Your task to perform on an android device: empty trash in the gmail app Image 0: 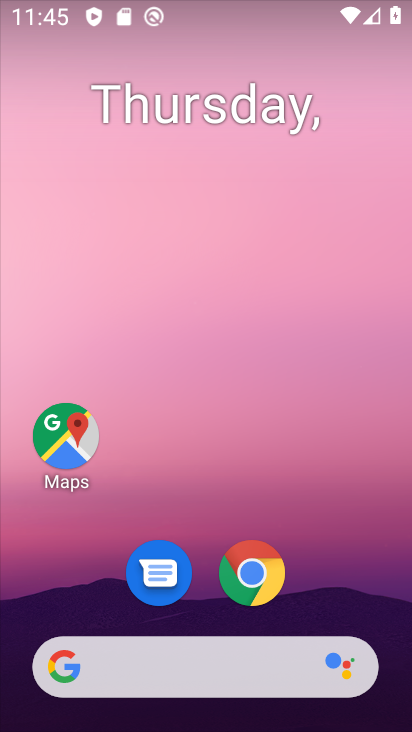
Step 0: drag from (201, 585) to (194, 136)
Your task to perform on an android device: empty trash in the gmail app Image 1: 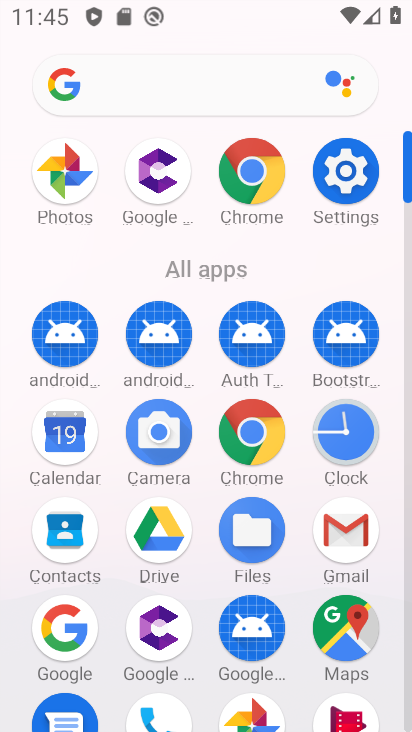
Step 1: click (345, 524)
Your task to perform on an android device: empty trash in the gmail app Image 2: 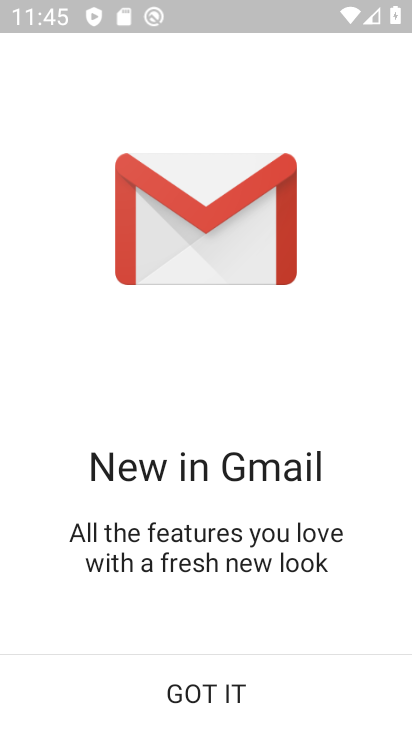
Step 2: click (221, 673)
Your task to perform on an android device: empty trash in the gmail app Image 3: 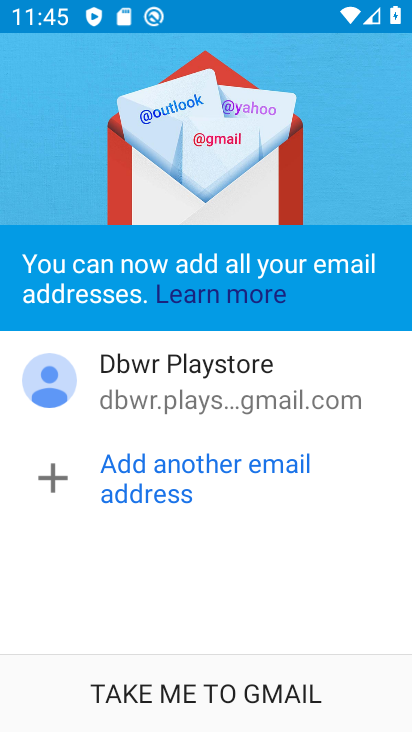
Step 3: click (212, 687)
Your task to perform on an android device: empty trash in the gmail app Image 4: 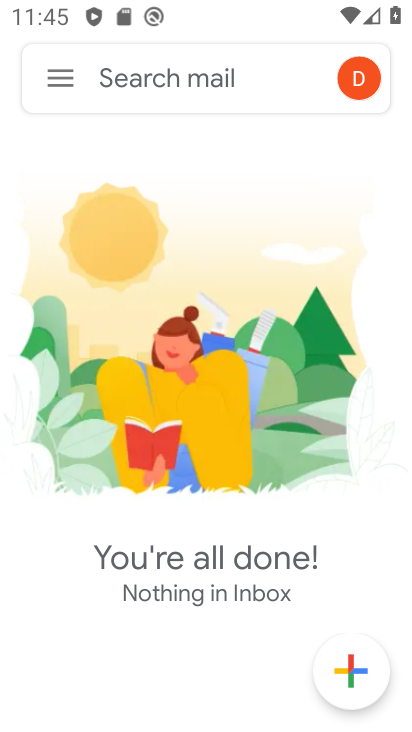
Step 4: click (61, 76)
Your task to perform on an android device: empty trash in the gmail app Image 5: 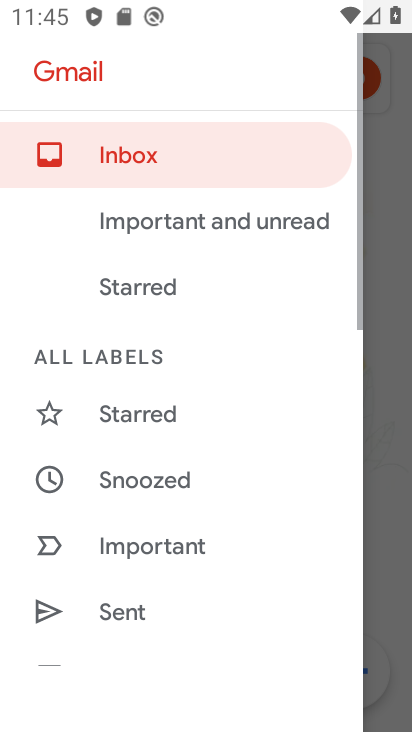
Step 5: drag from (139, 639) to (206, 215)
Your task to perform on an android device: empty trash in the gmail app Image 6: 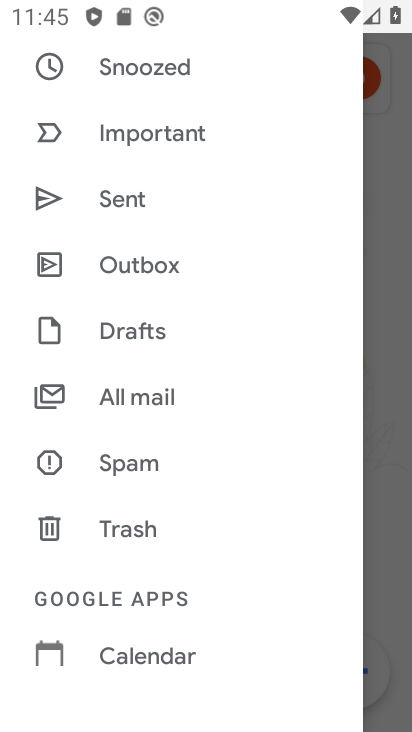
Step 6: click (111, 534)
Your task to perform on an android device: empty trash in the gmail app Image 7: 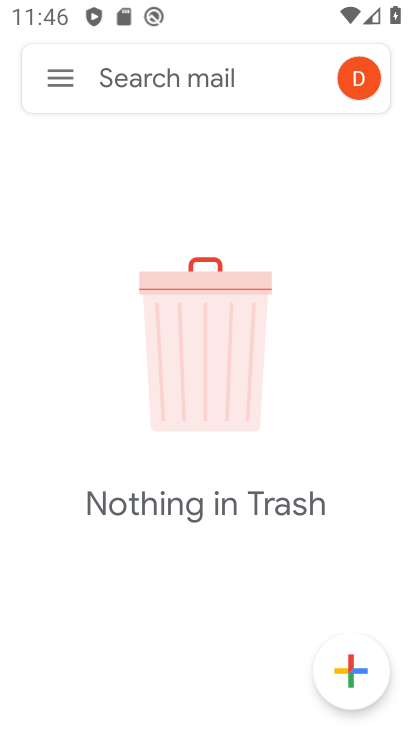
Step 7: task complete